Your task to perform on an android device: open wifi settings Image 0: 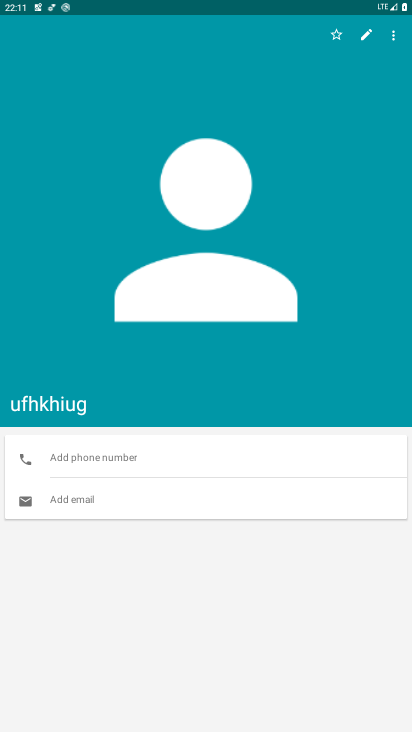
Step 0: drag from (47, 706) to (76, 303)
Your task to perform on an android device: open wifi settings Image 1: 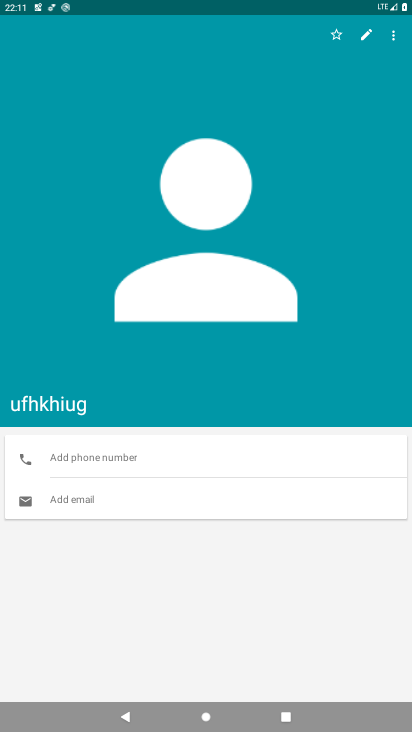
Step 1: press home button
Your task to perform on an android device: open wifi settings Image 2: 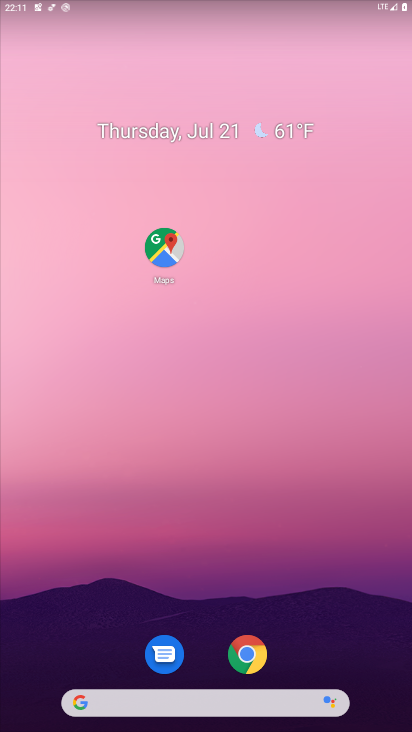
Step 2: drag from (52, 674) to (117, 82)
Your task to perform on an android device: open wifi settings Image 3: 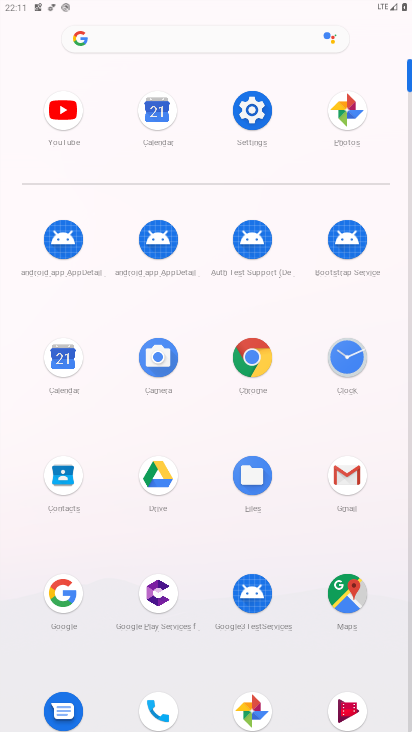
Step 3: click (256, 121)
Your task to perform on an android device: open wifi settings Image 4: 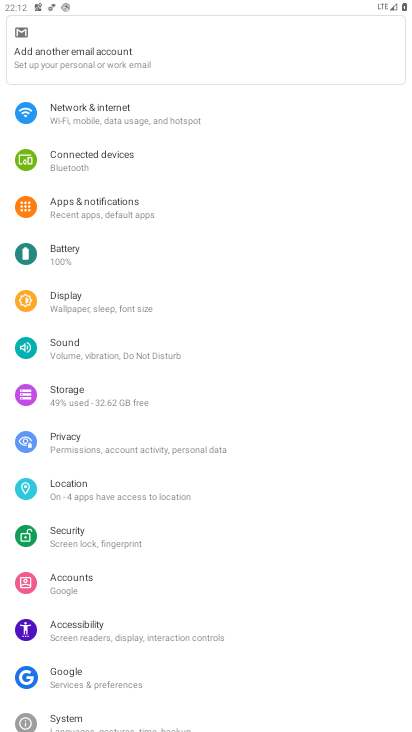
Step 4: click (81, 101)
Your task to perform on an android device: open wifi settings Image 5: 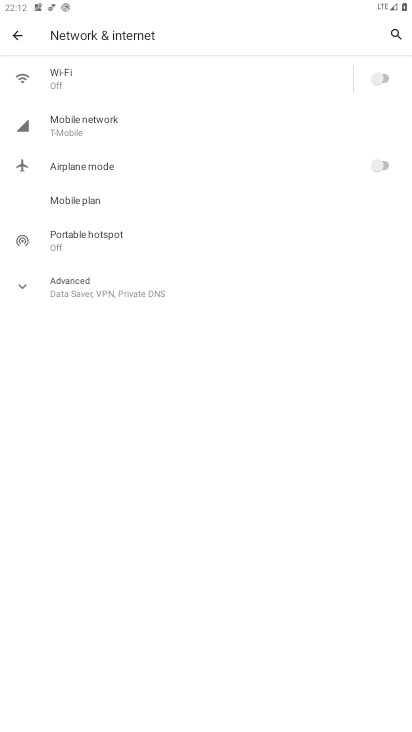
Step 5: click (139, 79)
Your task to perform on an android device: open wifi settings Image 6: 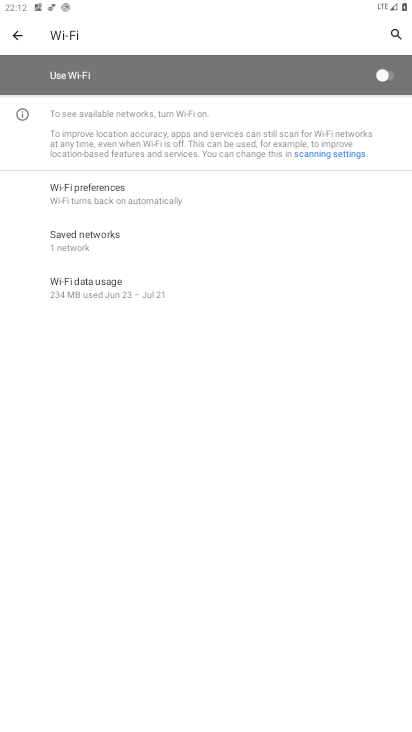
Step 6: click (385, 77)
Your task to perform on an android device: open wifi settings Image 7: 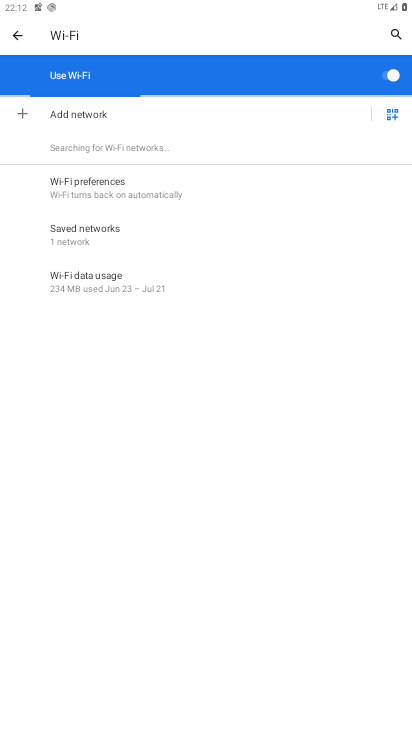
Step 7: task complete